Your task to perform on an android device: Search for the best rated kitchen reno kits on Lowes.com Image 0: 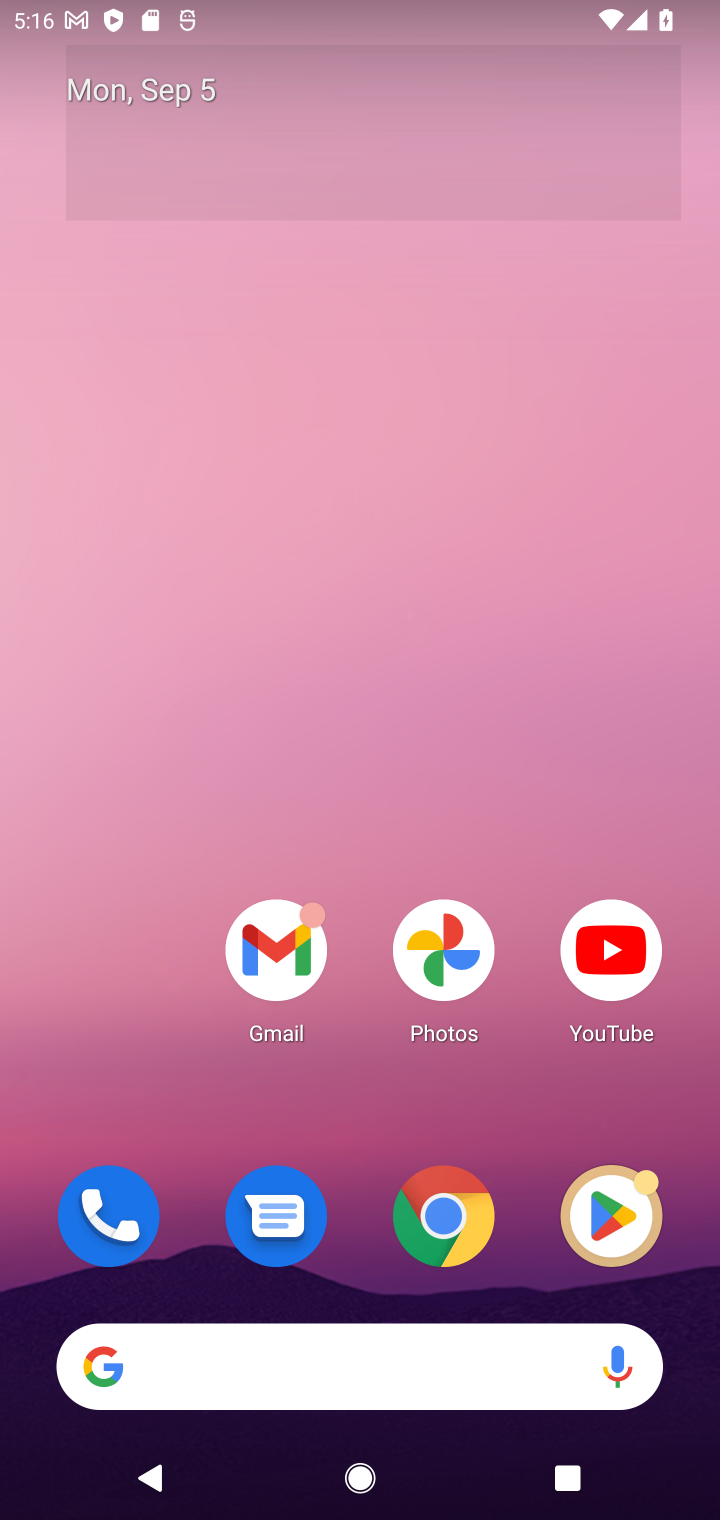
Step 0: click (434, 1238)
Your task to perform on an android device: Search for the best rated kitchen reno kits on Lowes.com Image 1: 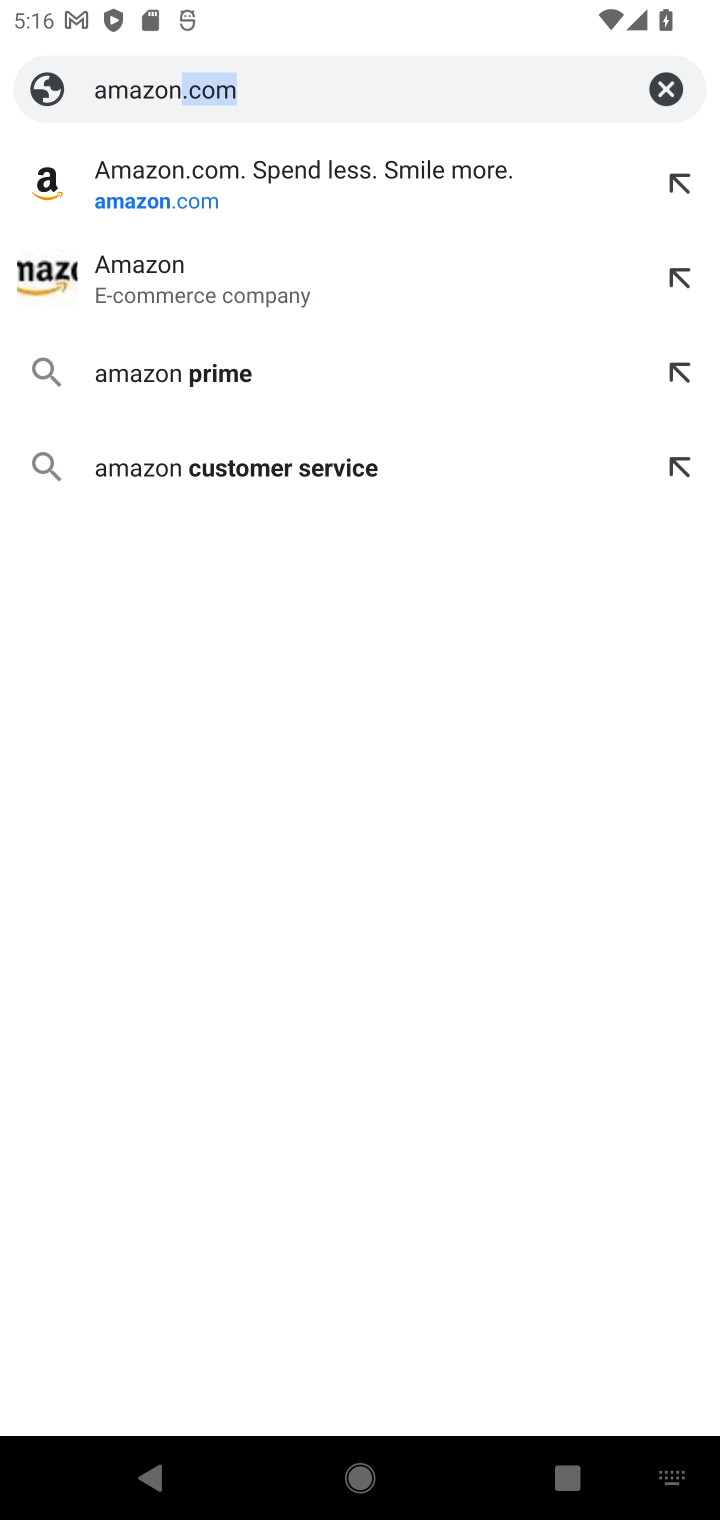
Step 1: click (545, 68)
Your task to perform on an android device: Search for the best rated kitchen reno kits on Lowes.com Image 2: 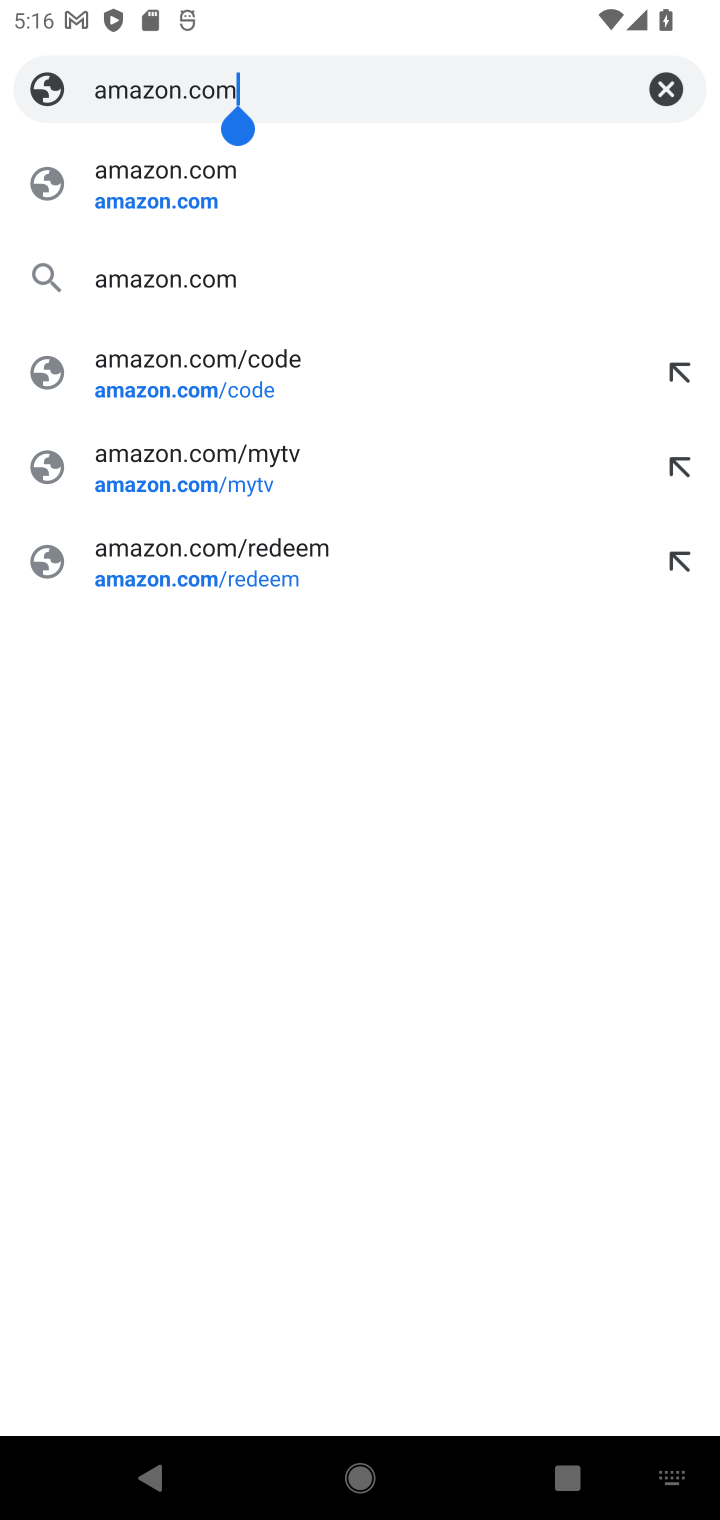
Step 2: click (493, 97)
Your task to perform on an android device: Search for the best rated kitchen reno kits on Lowes.com Image 3: 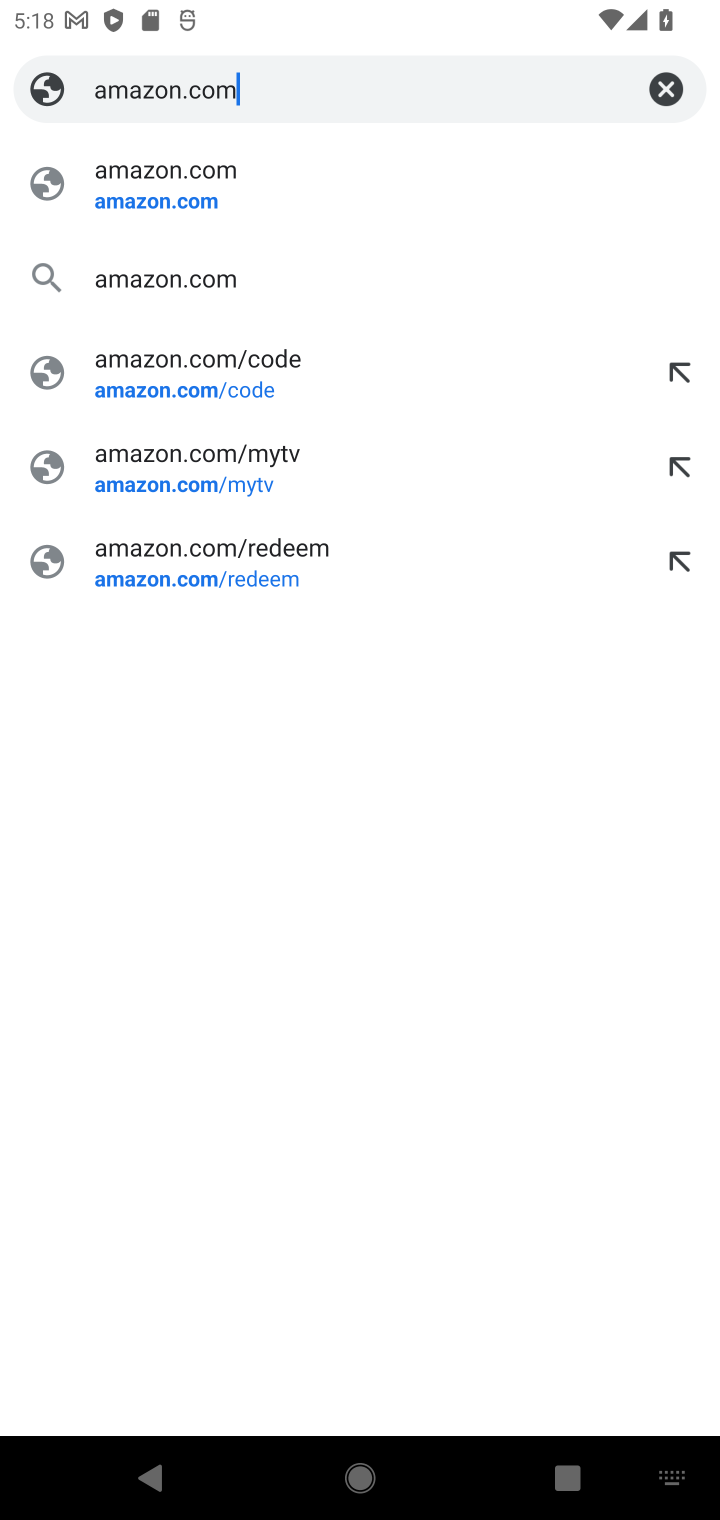
Step 3: click (667, 89)
Your task to perform on an android device: Search for the best rated kitchen reno kits on Lowes.com Image 4: 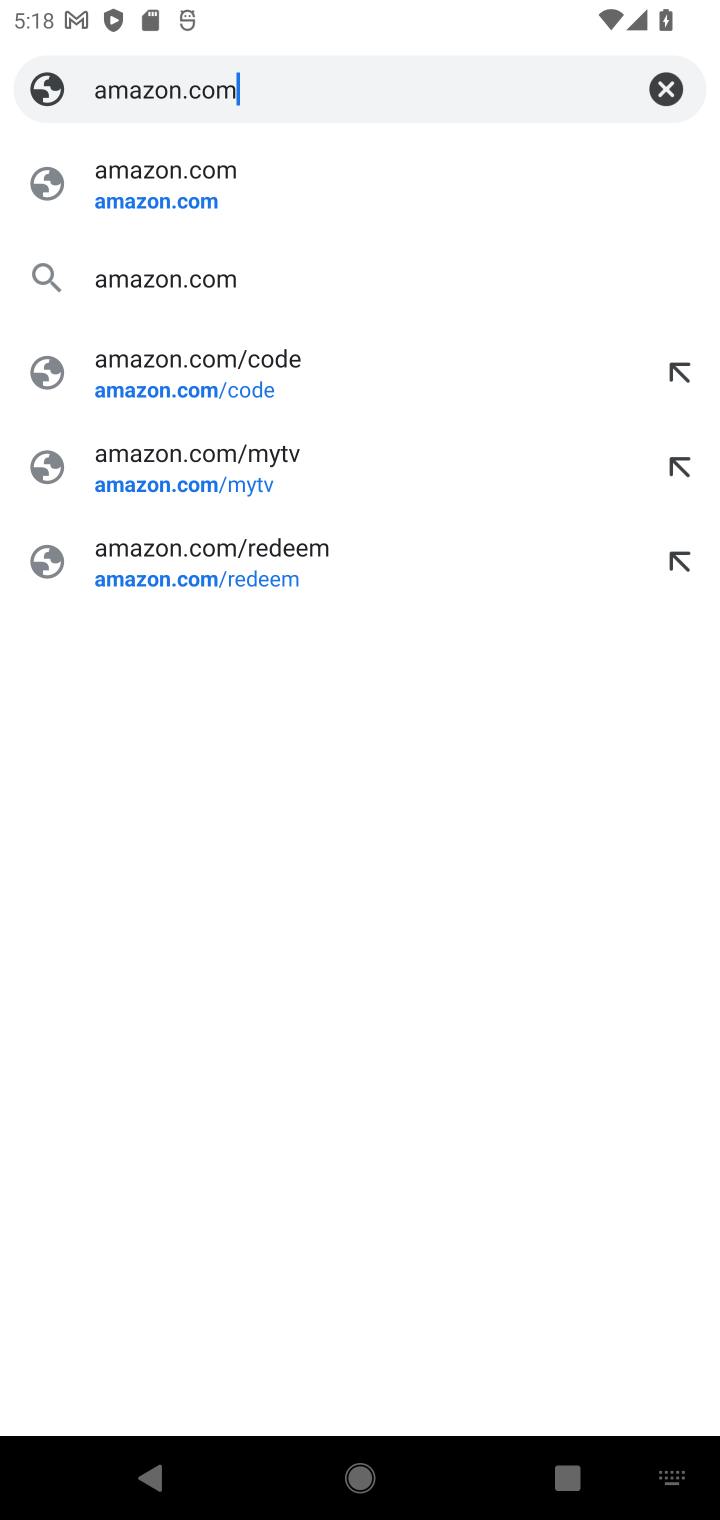
Step 4: click (667, 89)
Your task to perform on an android device: Search for the best rated kitchen reno kits on Lowes.com Image 5: 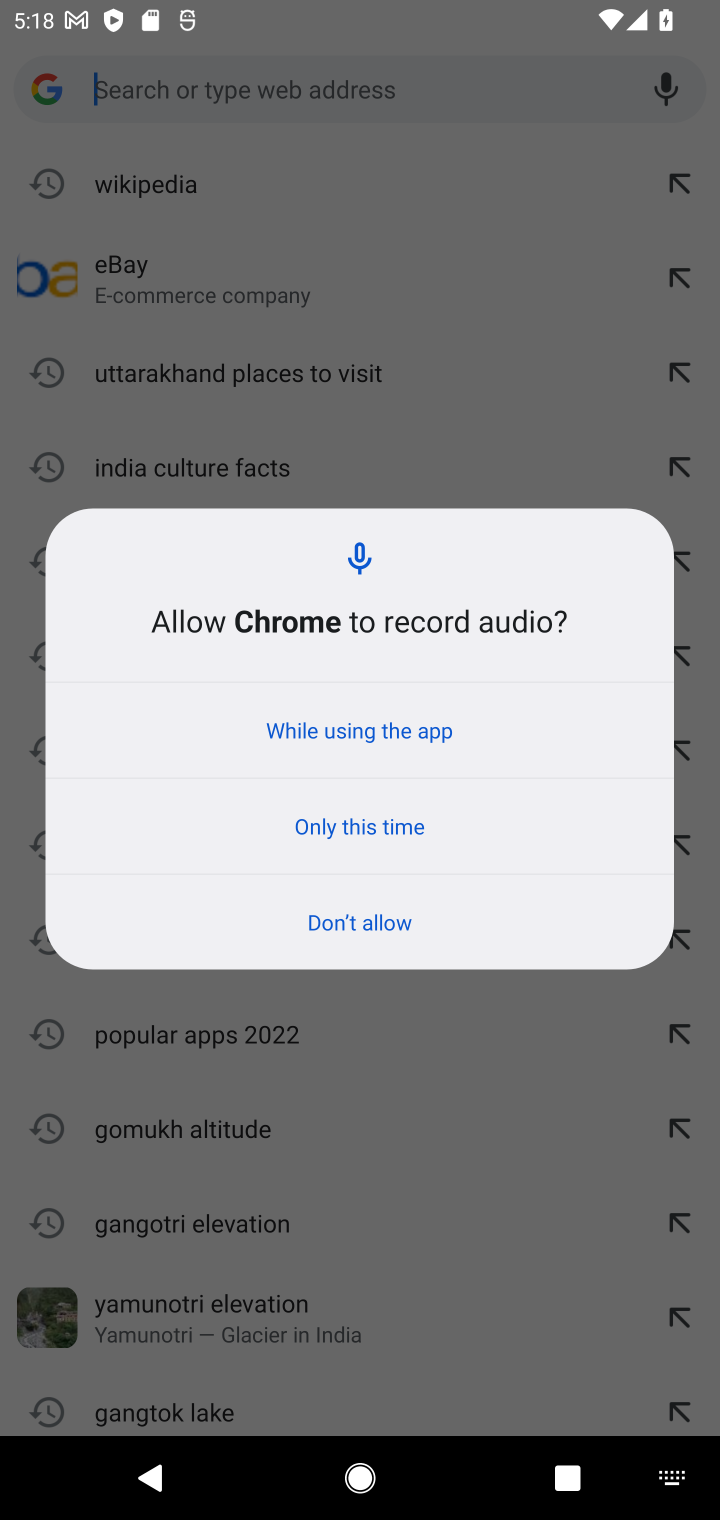
Step 5: type "lowe.com"
Your task to perform on an android device: Search for the best rated kitchen reno kits on Lowes.com Image 6: 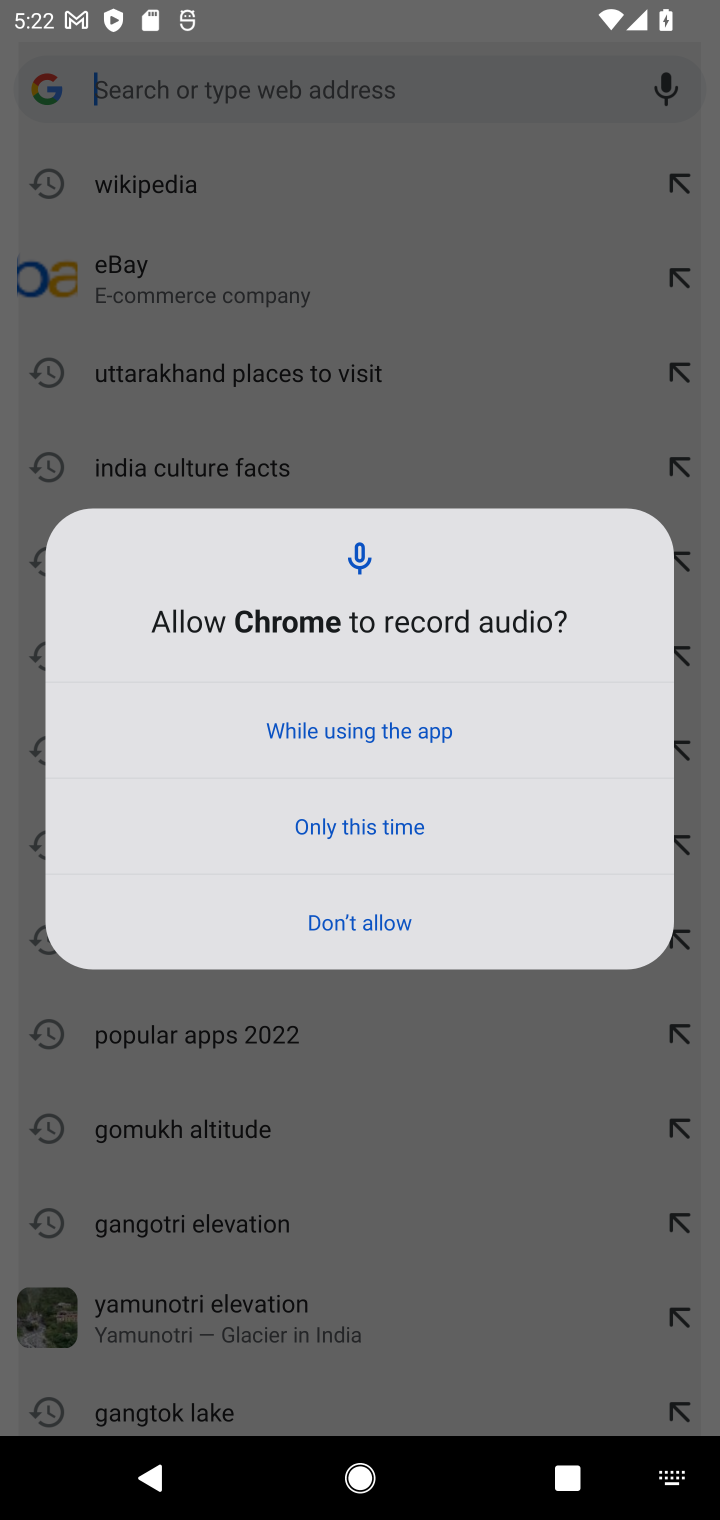
Step 6: click (381, 931)
Your task to perform on an android device: Search for the best rated kitchen reno kits on Lowes.com Image 7: 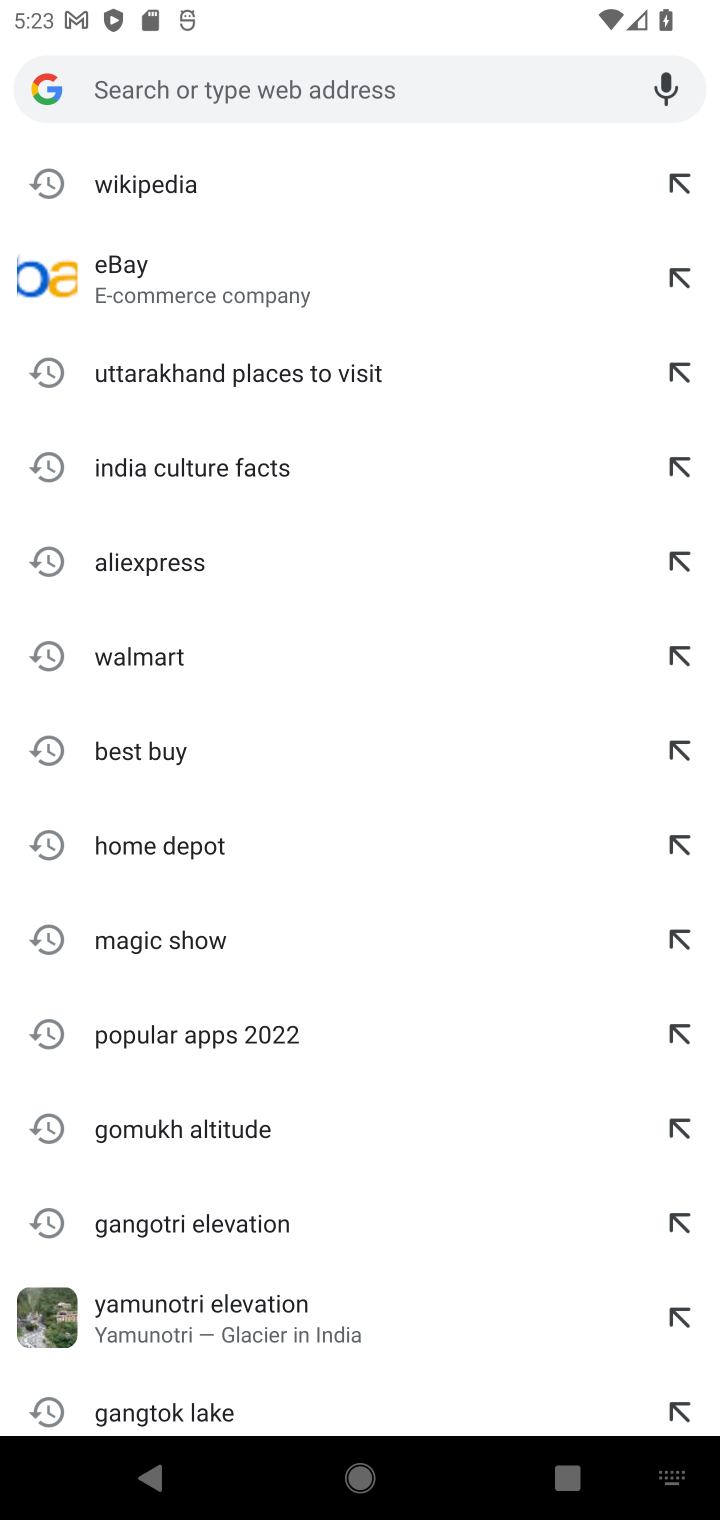
Step 7: task complete